Your task to perform on an android device: turn on data saver in the chrome app Image 0: 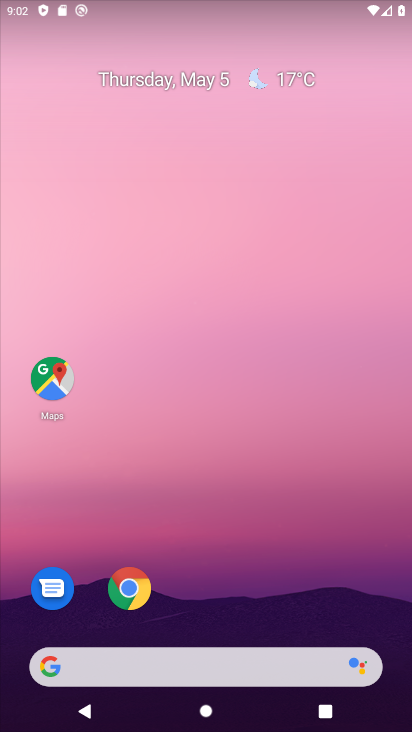
Step 0: drag from (264, 581) to (252, 263)
Your task to perform on an android device: turn on data saver in the chrome app Image 1: 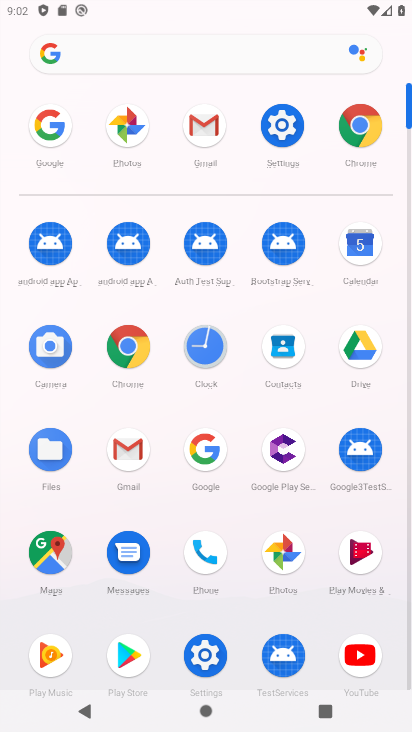
Step 1: click (132, 343)
Your task to perform on an android device: turn on data saver in the chrome app Image 2: 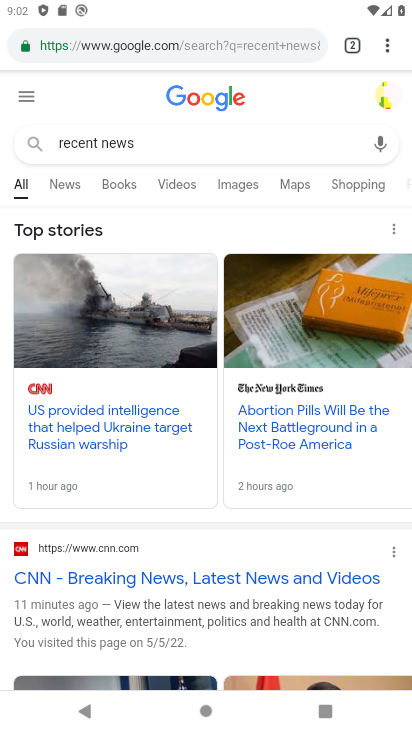
Step 2: click (382, 49)
Your task to perform on an android device: turn on data saver in the chrome app Image 3: 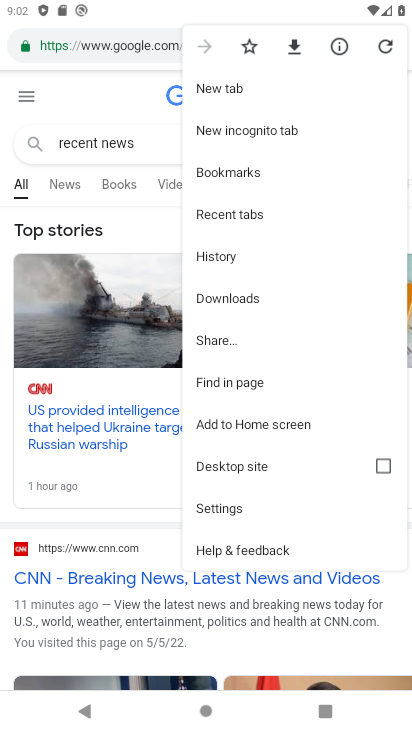
Step 3: click (234, 508)
Your task to perform on an android device: turn on data saver in the chrome app Image 4: 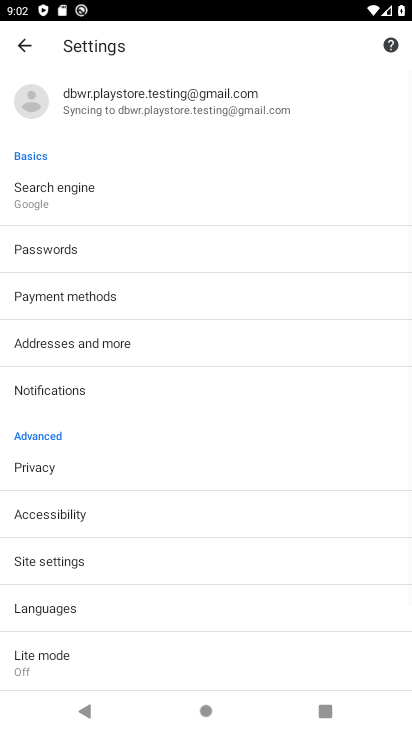
Step 4: click (45, 654)
Your task to perform on an android device: turn on data saver in the chrome app Image 5: 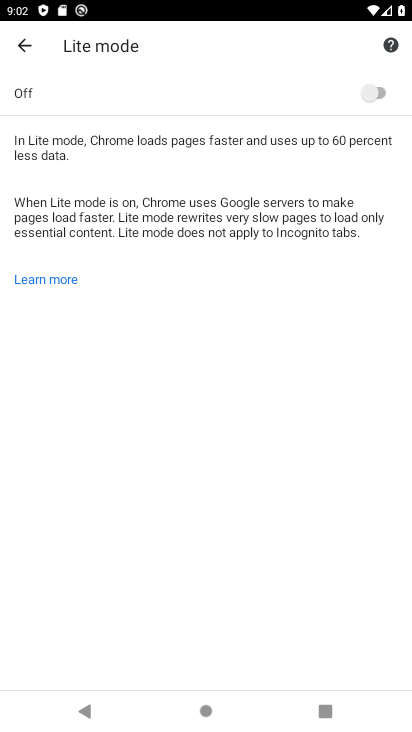
Step 5: click (378, 88)
Your task to perform on an android device: turn on data saver in the chrome app Image 6: 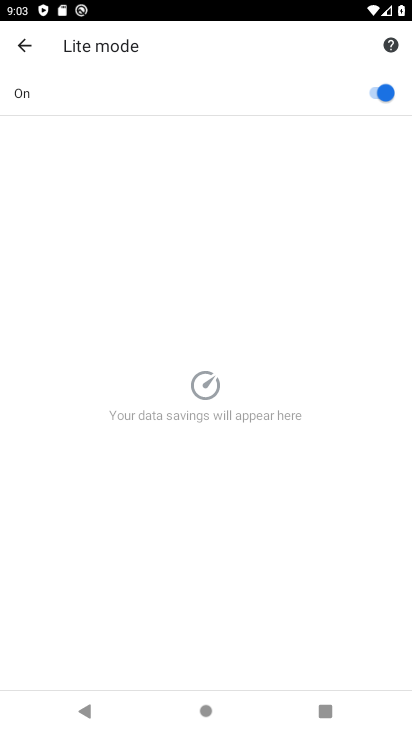
Step 6: task complete